Your task to perform on an android device: check google app version Image 0: 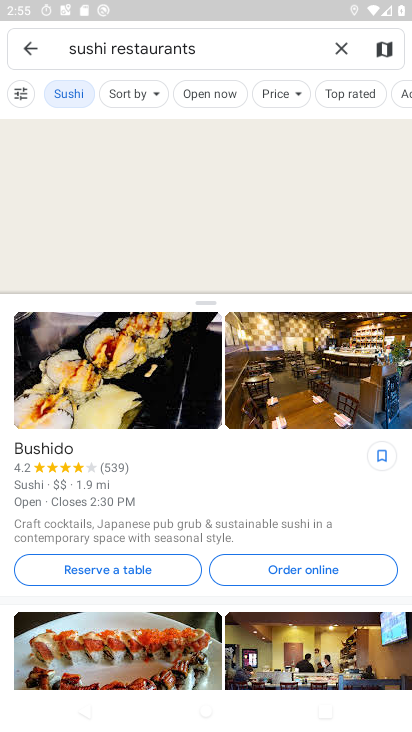
Step 0: press home button
Your task to perform on an android device: check google app version Image 1: 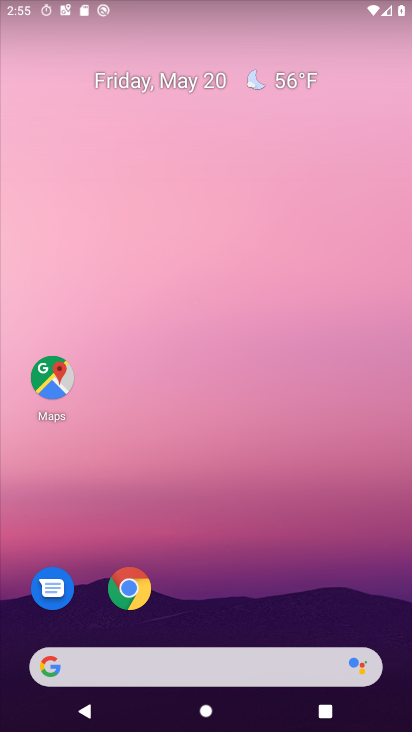
Step 1: drag from (78, 527) to (317, 97)
Your task to perform on an android device: check google app version Image 2: 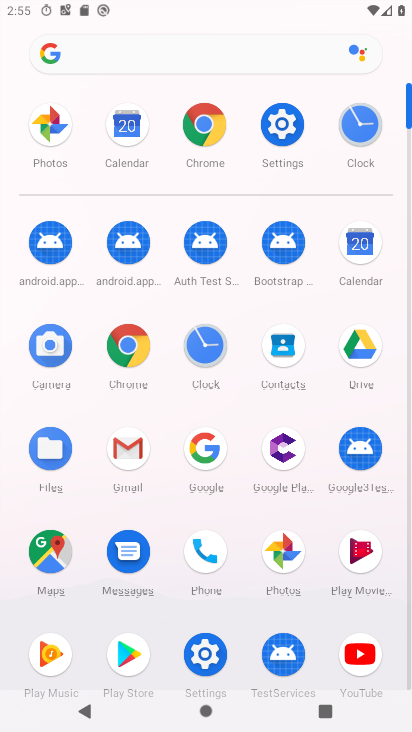
Step 2: click (368, 463)
Your task to perform on an android device: check google app version Image 3: 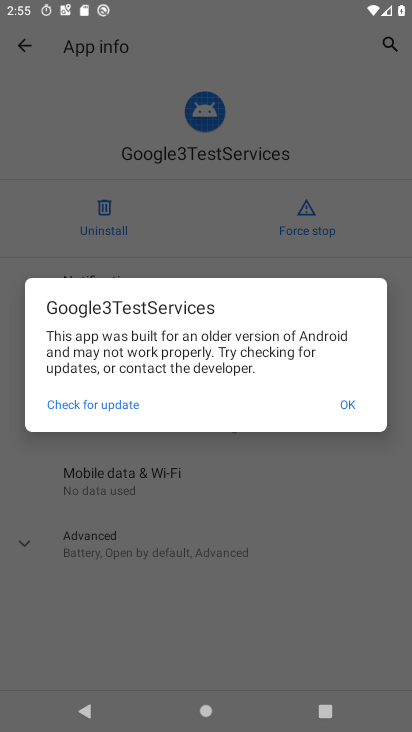
Step 3: click (345, 400)
Your task to perform on an android device: check google app version Image 4: 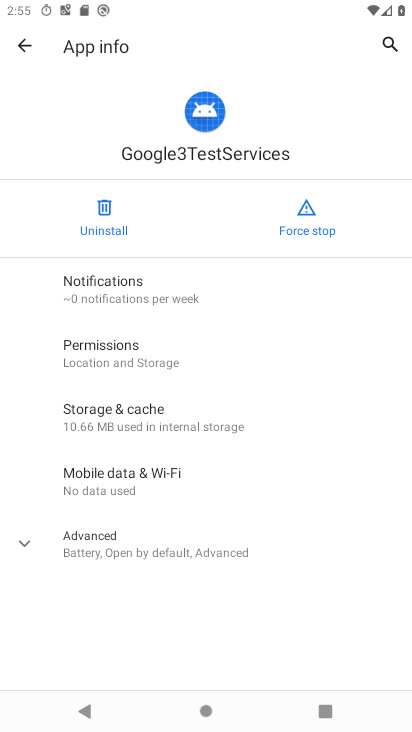
Step 4: click (140, 557)
Your task to perform on an android device: check google app version Image 5: 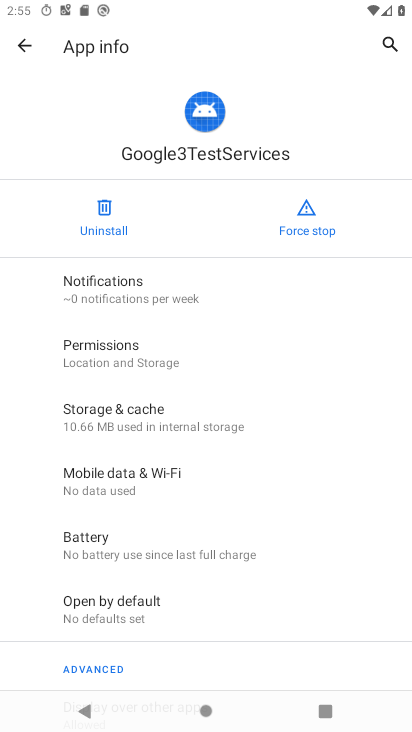
Step 5: drag from (23, 536) to (241, 155)
Your task to perform on an android device: check google app version Image 6: 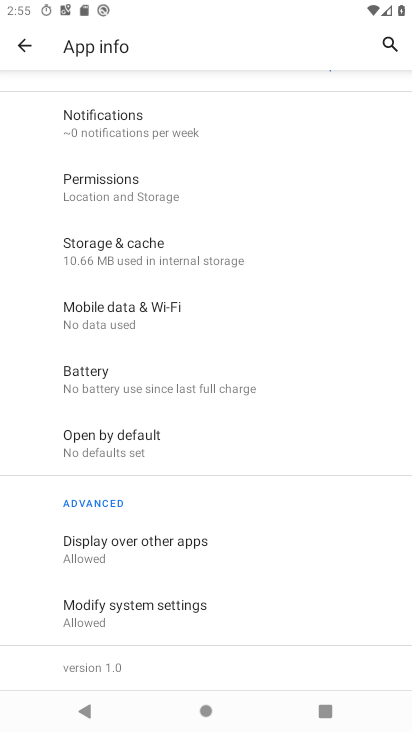
Step 6: click (83, 651)
Your task to perform on an android device: check google app version Image 7: 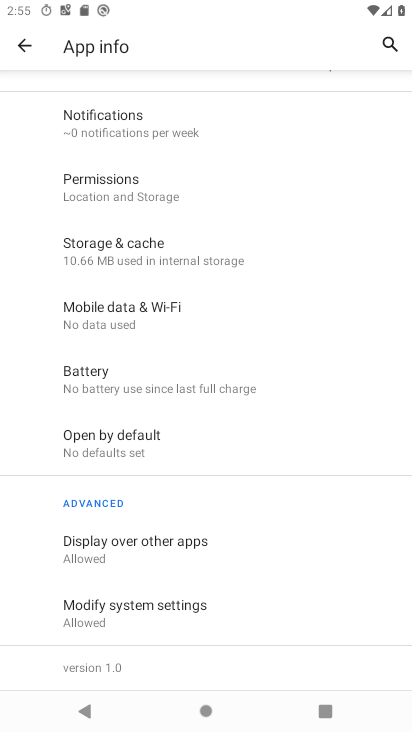
Step 7: task complete